Your task to perform on an android device: Go to Google Image 0: 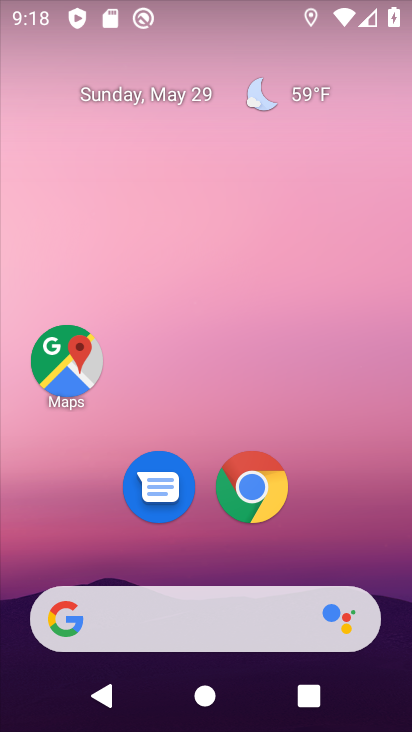
Step 0: drag from (317, 546) to (218, 67)
Your task to perform on an android device: Go to Google Image 1: 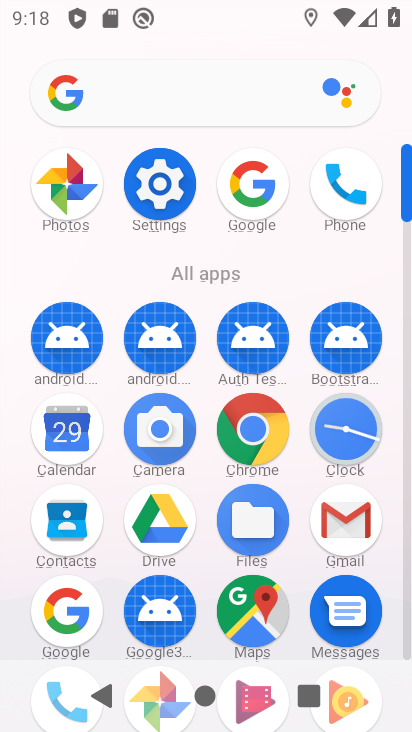
Step 1: click (247, 183)
Your task to perform on an android device: Go to Google Image 2: 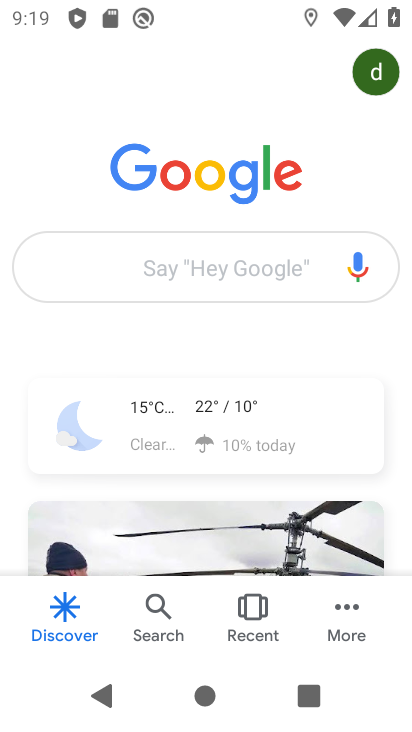
Step 2: task complete